Your task to perform on an android device: see tabs open on other devices in the chrome app Image 0: 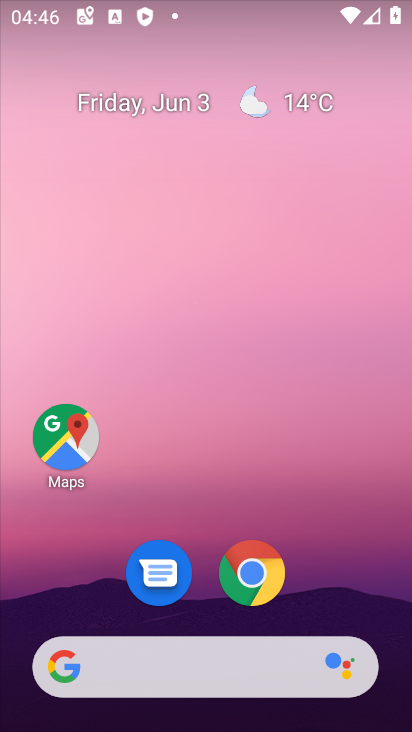
Step 0: press home button
Your task to perform on an android device: see tabs open on other devices in the chrome app Image 1: 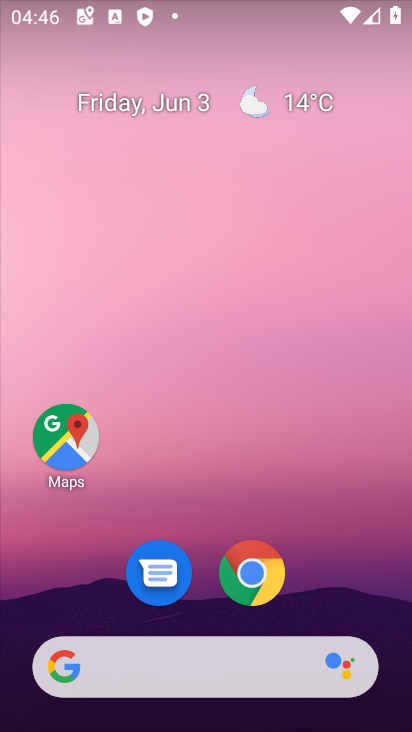
Step 1: drag from (370, 576) to (364, 287)
Your task to perform on an android device: see tabs open on other devices in the chrome app Image 2: 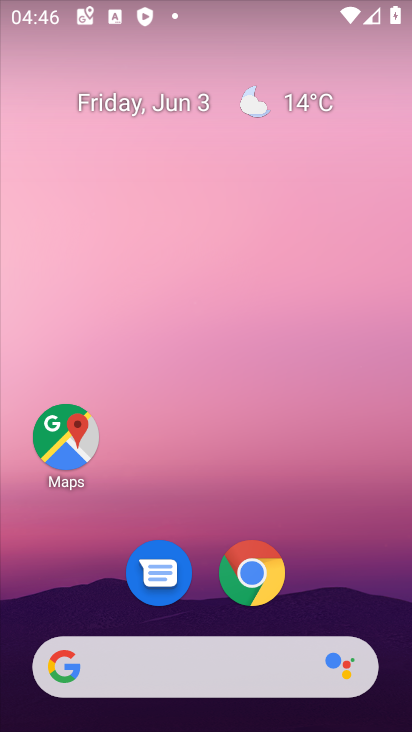
Step 2: drag from (315, 601) to (260, 181)
Your task to perform on an android device: see tabs open on other devices in the chrome app Image 3: 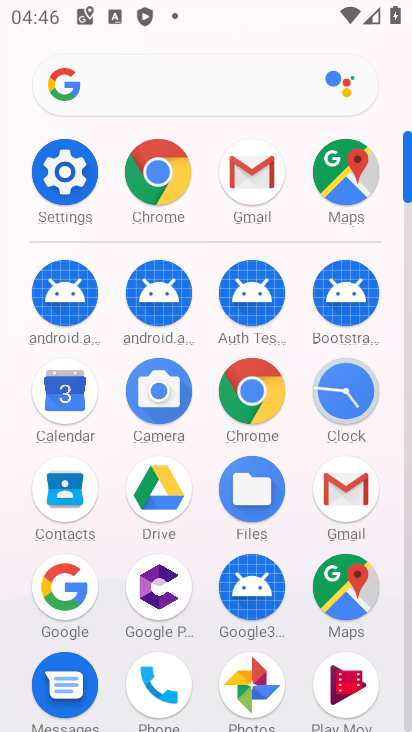
Step 3: click (163, 191)
Your task to perform on an android device: see tabs open on other devices in the chrome app Image 4: 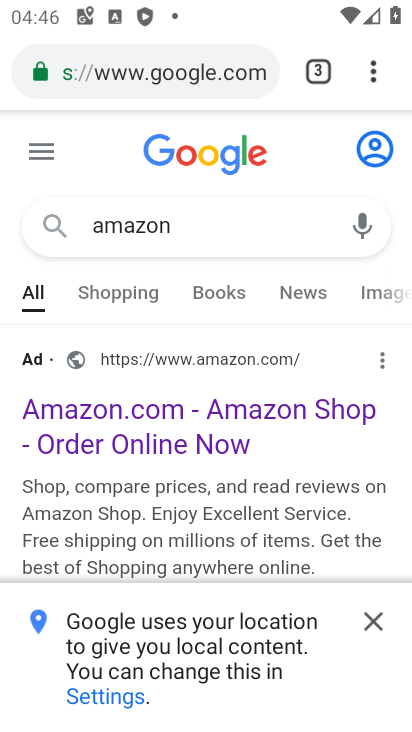
Step 4: click (376, 71)
Your task to perform on an android device: see tabs open on other devices in the chrome app Image 5: 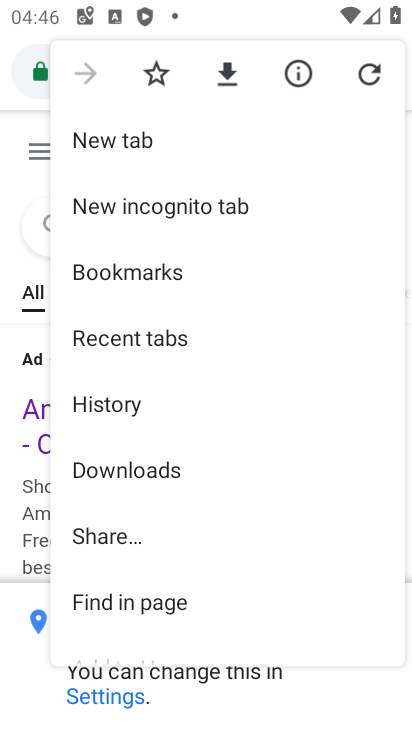
Step 5: click (172, 341)
Your task to perform on an android device: see tabs open on other devices in the chrome app Image 6: 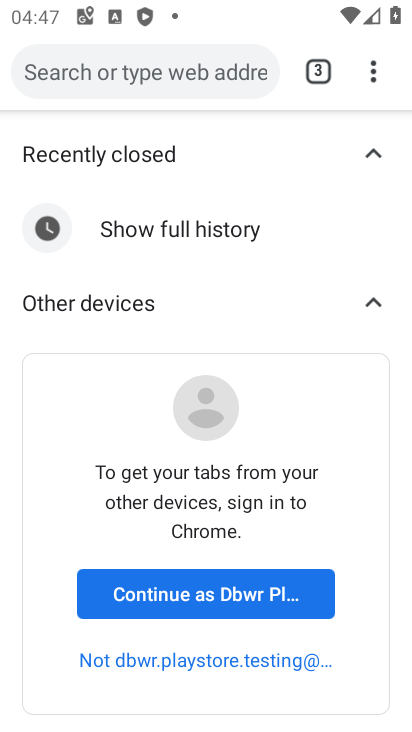
Step 6: click (376, 303)
Your task to perform on an android device: see tabs open on other devices in the chrome app Image 7: 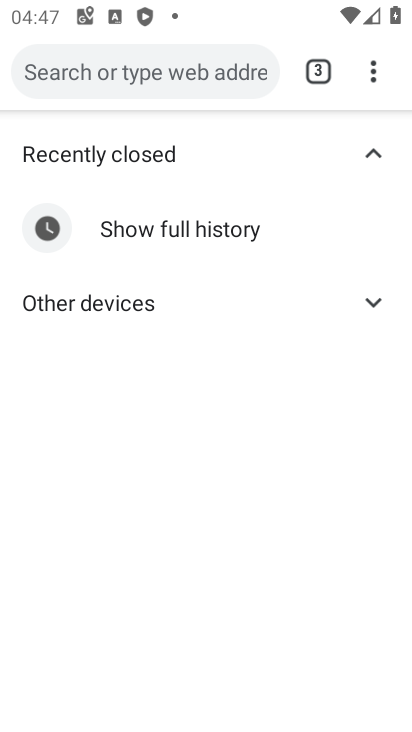
Step 7: click (373, 295)
Your task to perform on an android device: see tabs open on other devices in the chrome app Image 8: 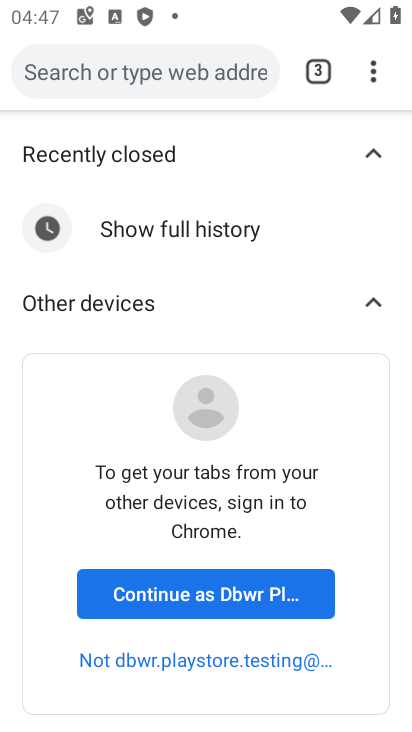
Step 8: task complete